Your task to perform on an android device: turn off smart reply in the gmail app Image 0: 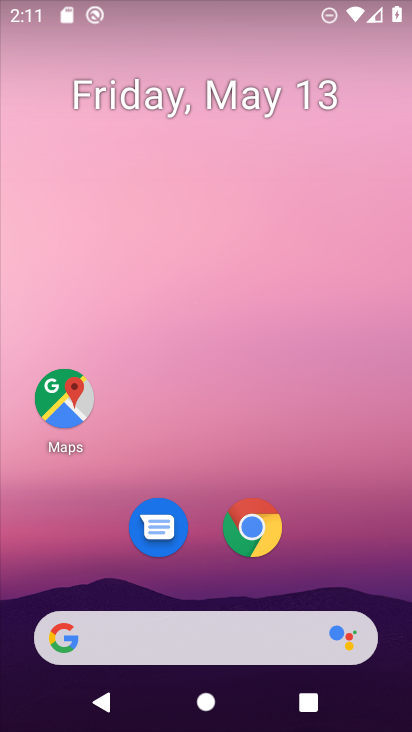
Step 0: drag from (312, 552) to (327, 197)
Your task to perform on an android device: turn off smart reply in the gmail app Image 1: 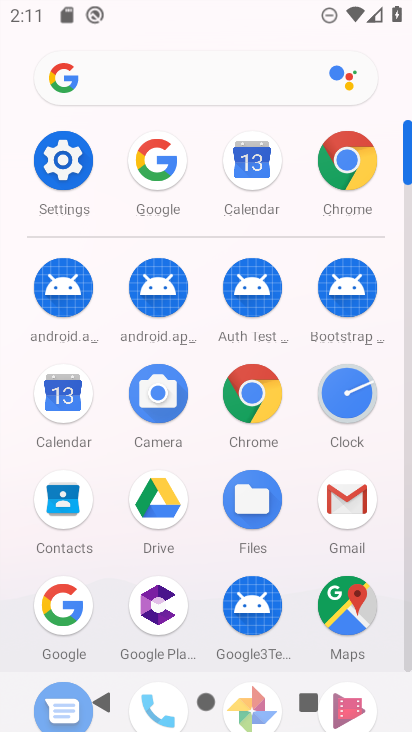
Step 1: click (346, 497)
Your task to perform on an android device: turn off smart reply in the gmail app Image 2: 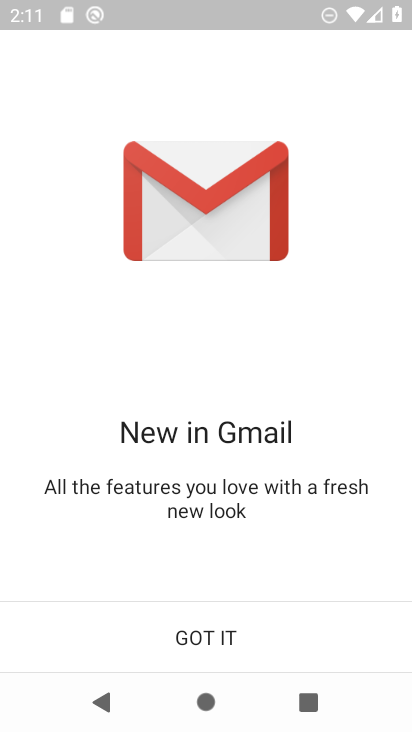
Step 2: click (198, 645)
Your task to perform on an android device: turn off smart reply in the gmail app Image 3: 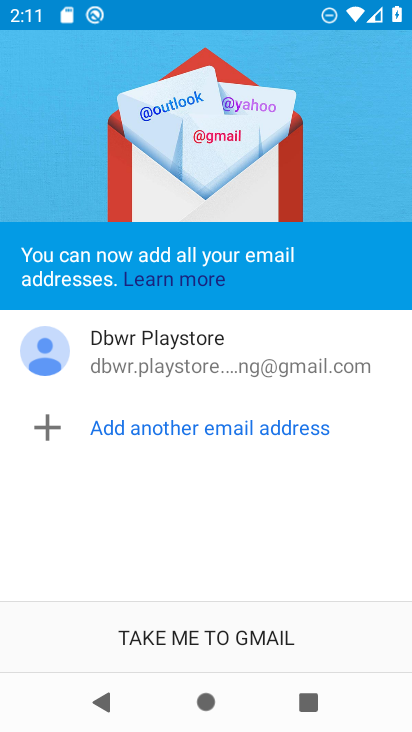
Step 3: click (199, 621)
Your task to perform on an android device: turn off smart reply in the gmail app Image 4: 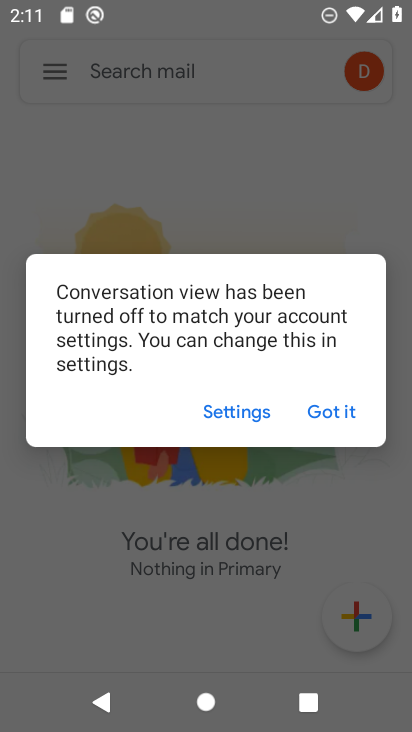
Step 4: click (344, 402)
Your task to perform on an android device: turn off smart reply in the gmail app Image 5: 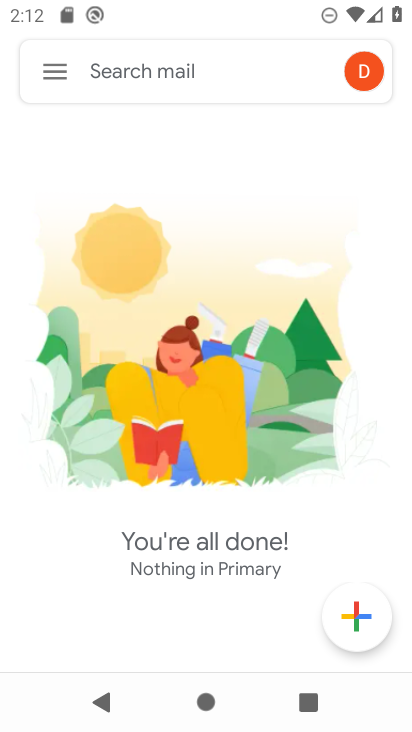
Step 5: click (68, 79)
Your task to perform on an android device: turn off smart reply in the gmail app Image 6: 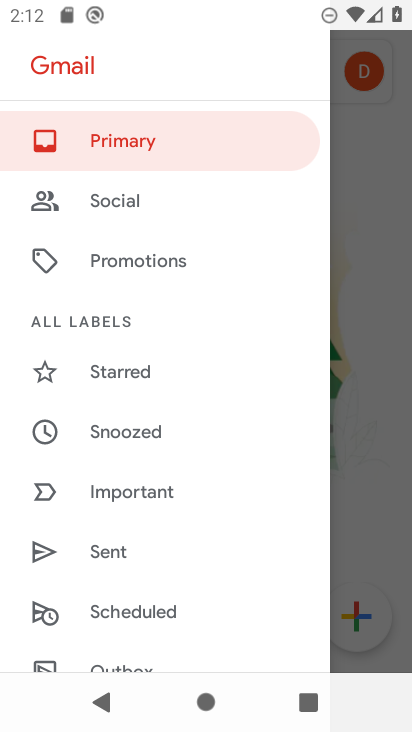
Step 6: drag from (232, 610) to (245, 315)
Your task to perform on an android device: turn off smart reply in the gmail app Image 7: 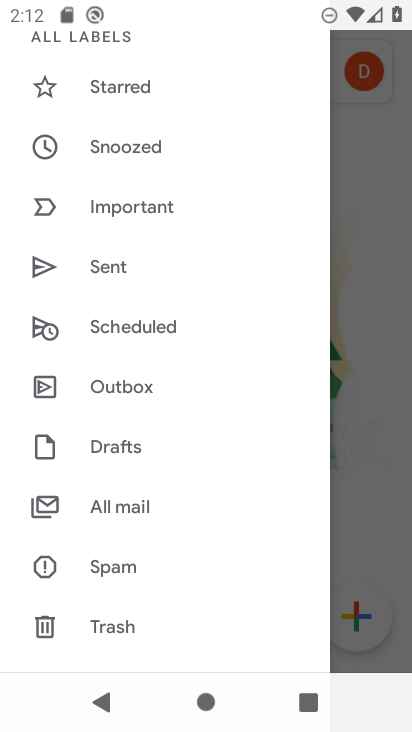
Step 7: drag from (185, 564) to (208, 333)
Your task to perform on an android device: turn off smart reply in the gmail app Image 8: 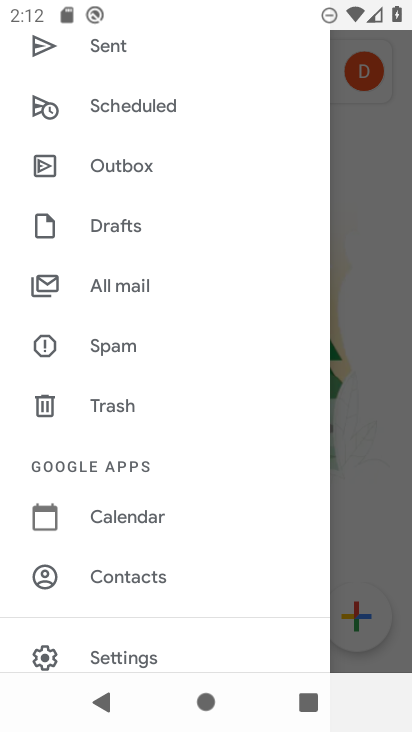
Step 8: click (136, 667)
Your task to perform on an android device: turn off smart reply in the gmail app Image 9: 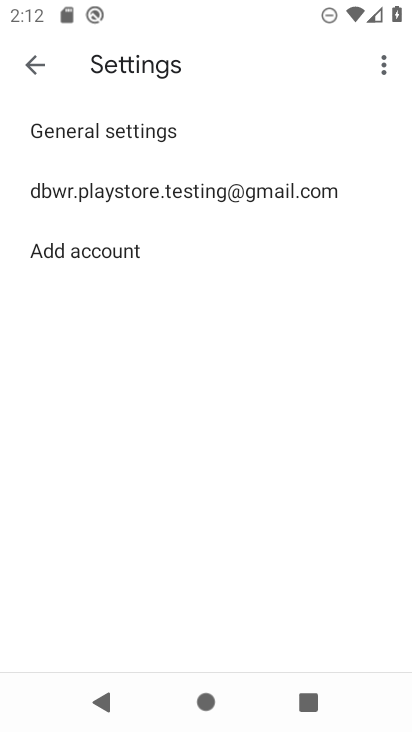
Step 9: click (218, 184)
Your task to perform on an android device: turn off smart reply in the gmail app Image 10: 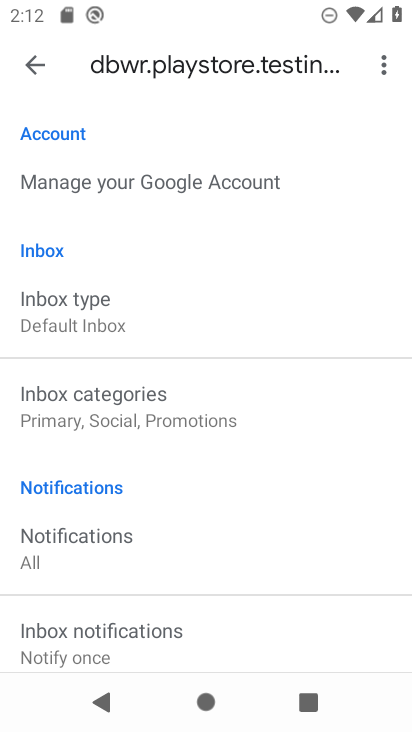
Step 10: drag from (281, 637) to (262, 302)
Your task to perform on an android device: turn off smart reply in the gmail app Image 11: 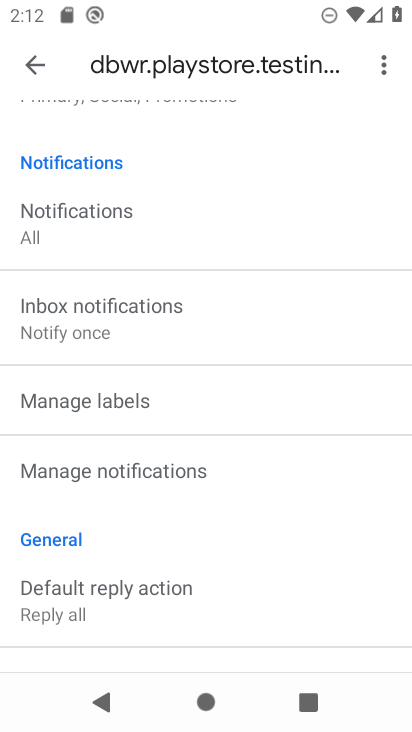
Step 11: drag from (280, 600) to (278, 321)
Your task to perform on an android device: turn off smart reply in the gmail app Image 12: 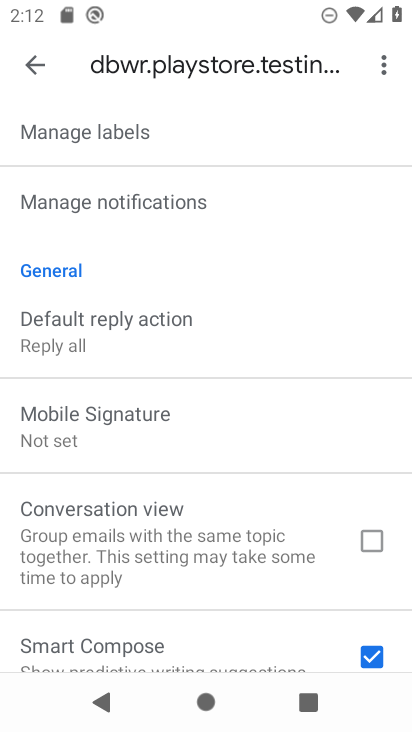
Step 12: drag from (320, 644) to (320, 351)
Your task to perform on an android device: turn off smart reply in the gmail app Image 13: 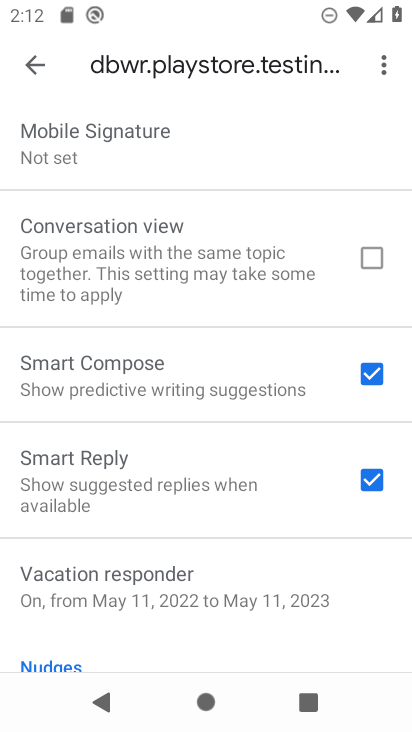
Step 13: click (367, 485)
Your task to perform on an android device: turn off smart reply in the gmail app Image 14: 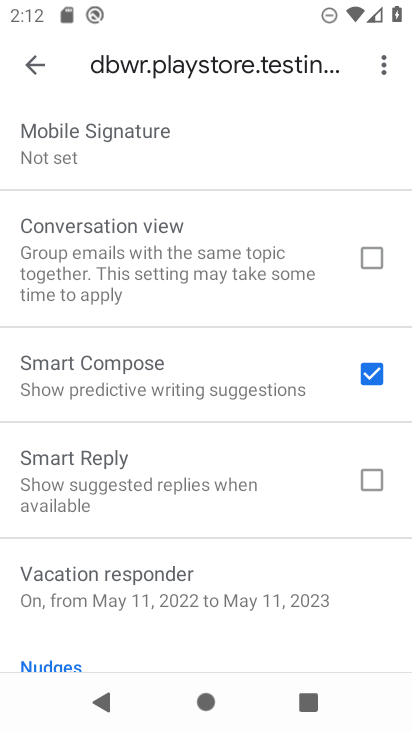
Step 14: task complete